Your task to perform on an android device: turn notification dots off Image 0: 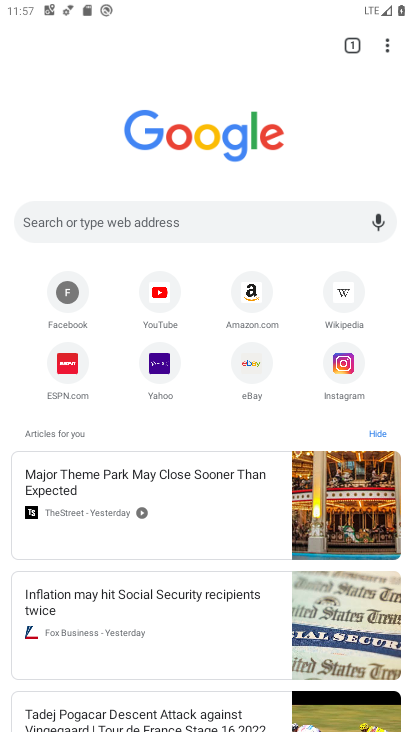
Step 0: press home button
Your task to perform on an android device: turn notification dots off Image 1: 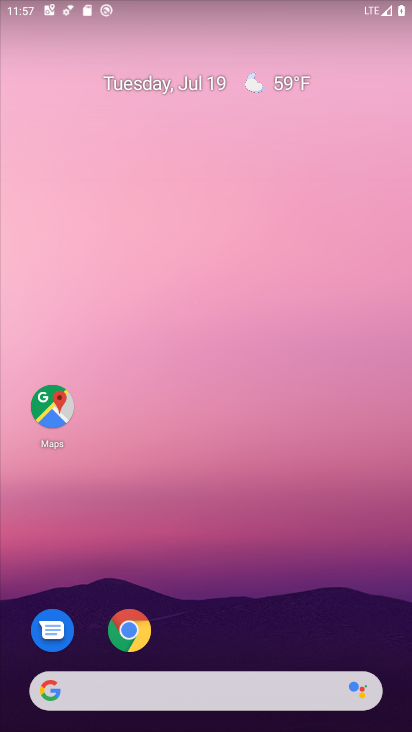
Step 1: drag from (342, 627) to (282, 157)
Your task to perform on an android device: turn notification dots off Image 2: 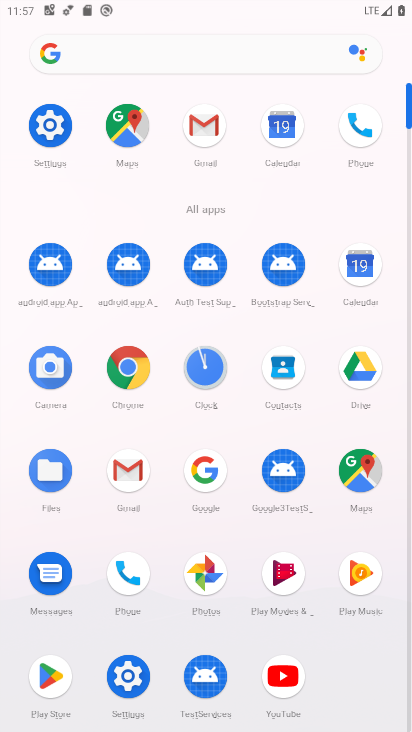
Step 2: click (129, 679)
Your task to perform on an android device: turn notification dots off Image 3: 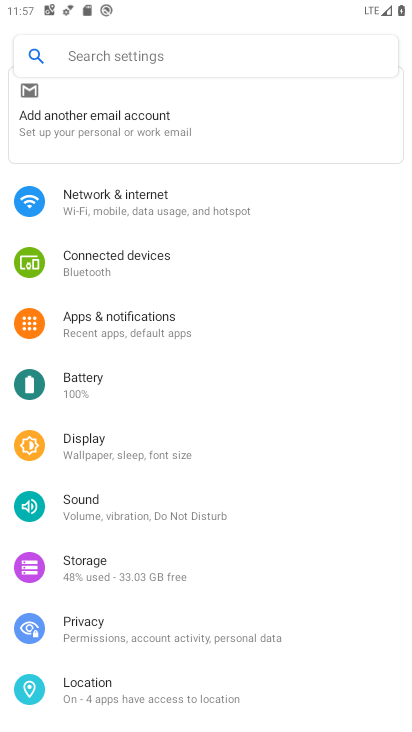
Step 3: click (109, 317)
Your task to perform on an android device: turn notification dots off Image 4: 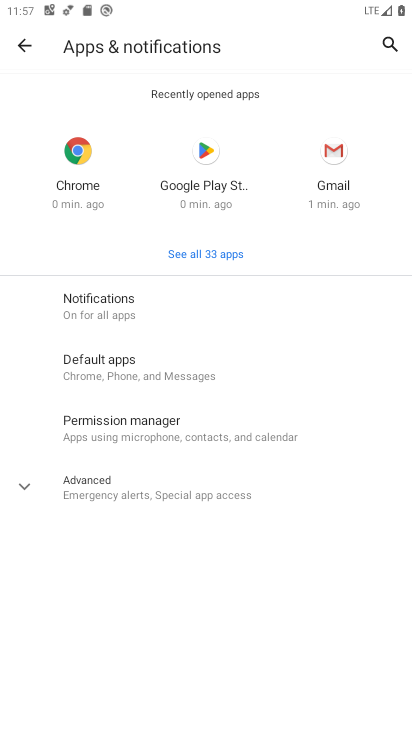
Step 4: click (83, 296)
Your task to perform on an android device: turn notification dots off Image 5: 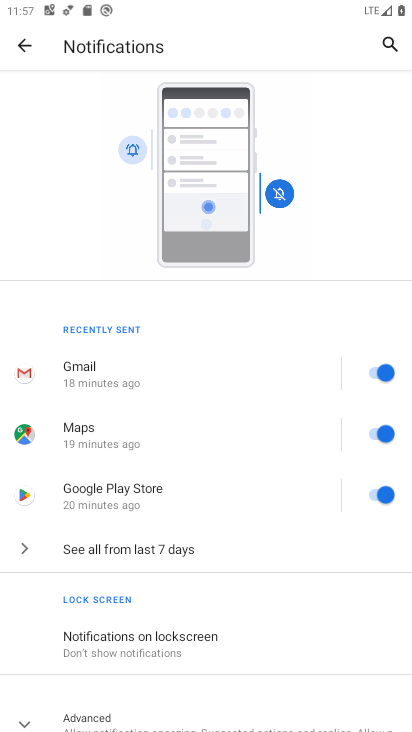
Step 5: drag from (257, 647) to (248, 285)
Your task to perform on an android device: turn notification dots off Image 6: 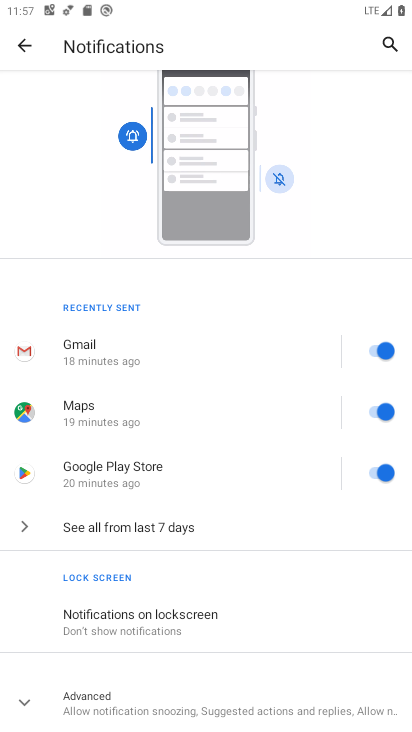
Step 6: click (15, 700)
Your task to perform on an android device: turn notification dots off Image 7: 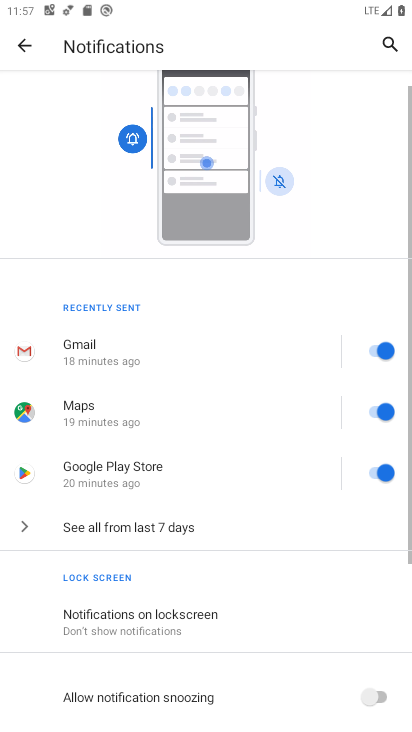
Step 7: drag from (264, 655) to (257, 217)
Your task to perform on an android device: turn notification dots off Image 8: 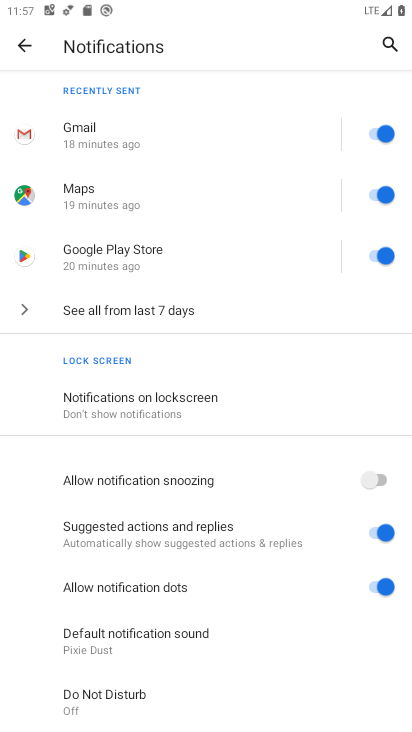
Step 8: click (371, 584)
Your task to perform on an android device: turn notification dots off Image 9: 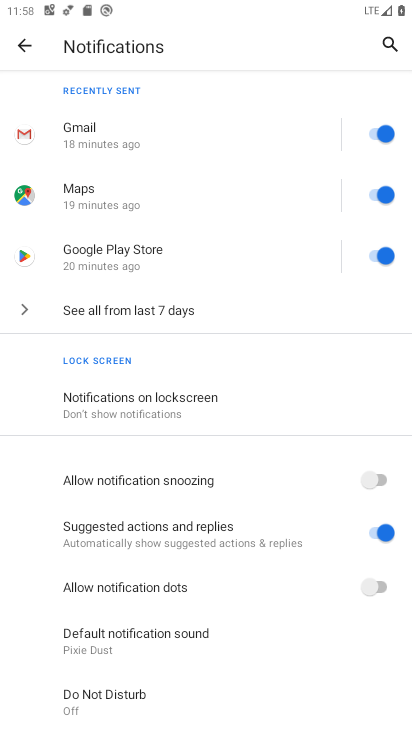
Step 9: task complete